Your task to perform on an android device: toggle sleep mode Image 0: 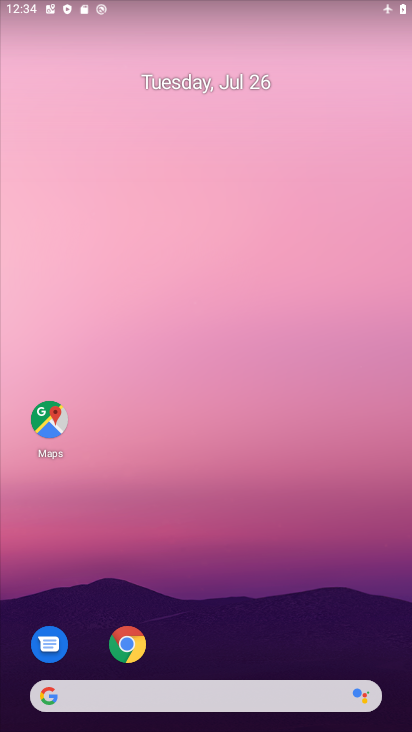
Step 0: drag from (249, 670) to (278, 0)
Your task to perform on an android device: toggle sleep mode Image 1: 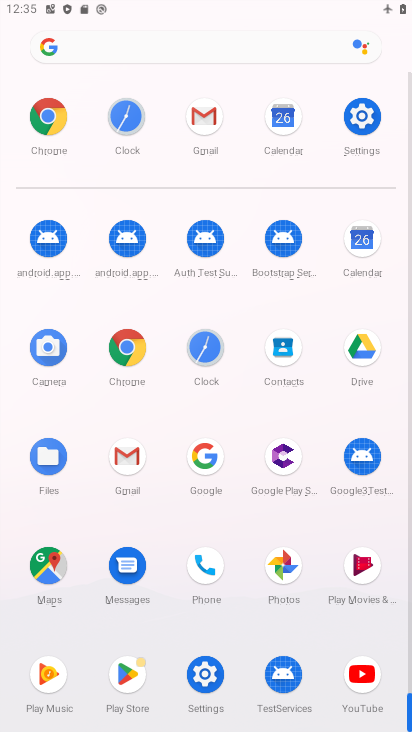
Step 1: click (350, 126)
Your task to perform on an android device: toggle sleep mode Image 2: 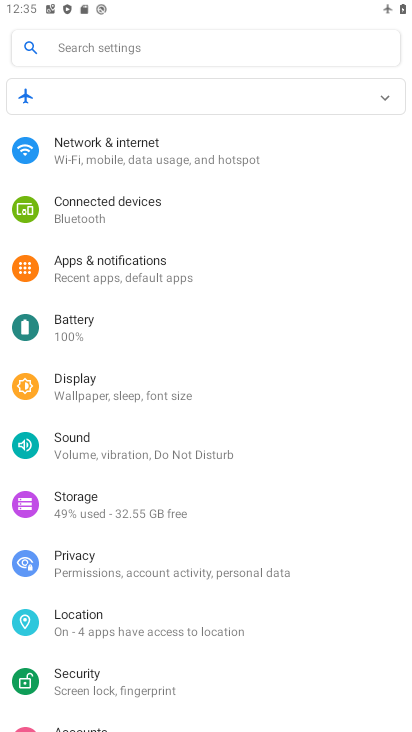
Step 2: click (128, 390)
Your task to perform on an android device: toggle sleep mode Image 3: 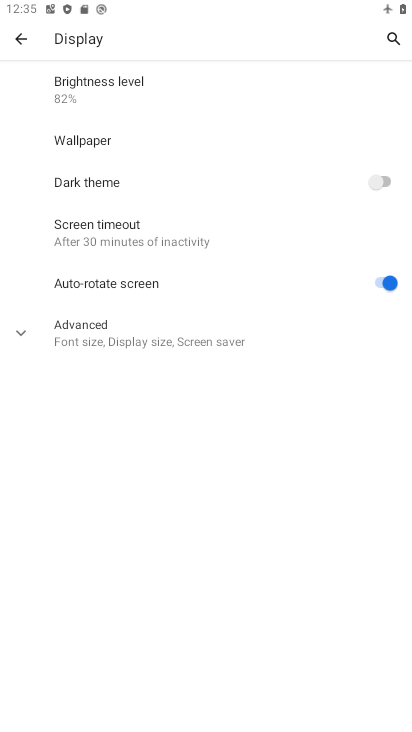
Step 3: click (128, 333)
Your task to perform on an android device: toggle sleep mode Image 4: 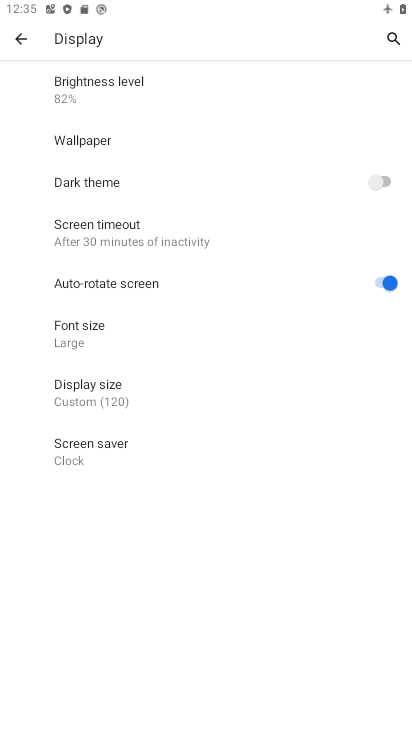
Step 4: task complete